Your task to perform on an android device: uninstall "Spotify" Image 0: 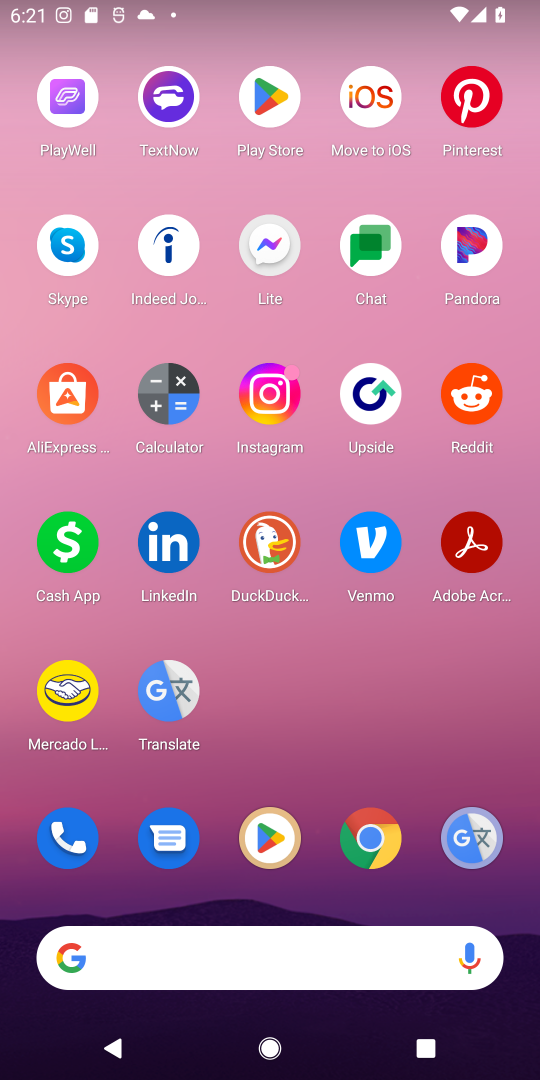
Step 0: click (274, 840)
Your task to perform on an android device: uninstall "Spotify" Image 1: 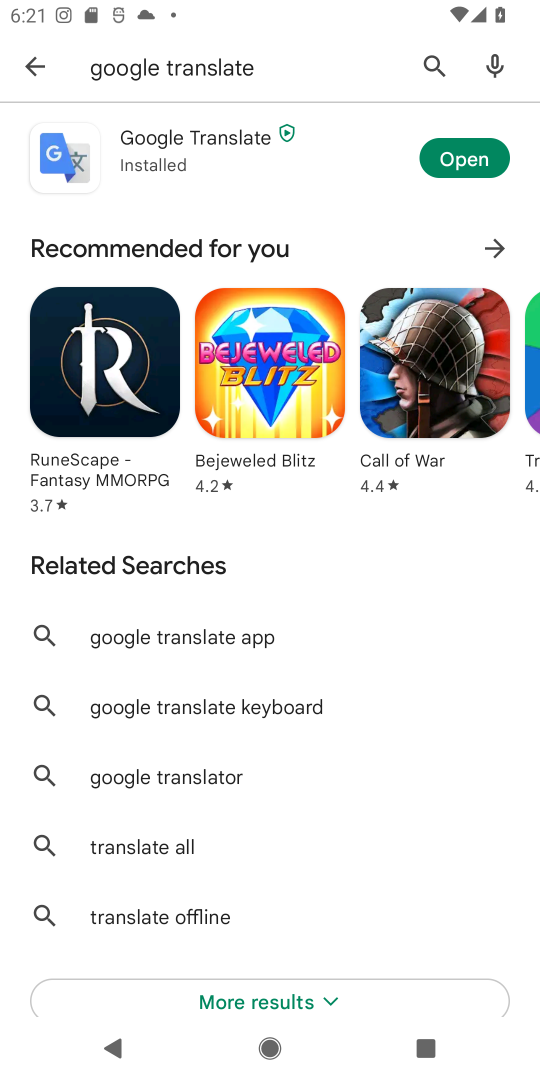
Step 1: click (433, 54)
Your task to perform on an android device: uninstall "Spotify" Image 2: 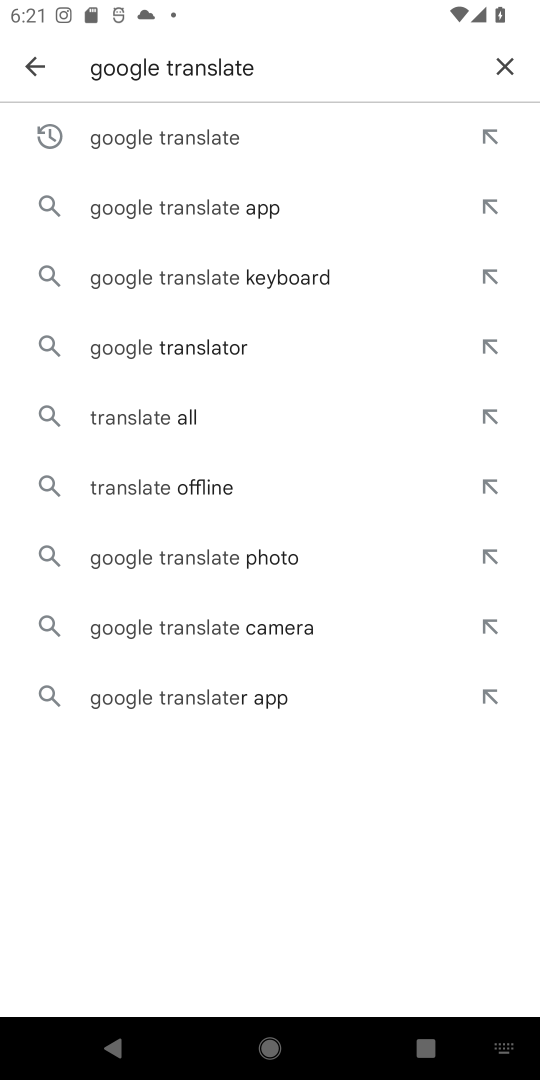
Step 2: click (505, 61)
Your task to perform on an android device: uninstall "Spotify" Image 3: 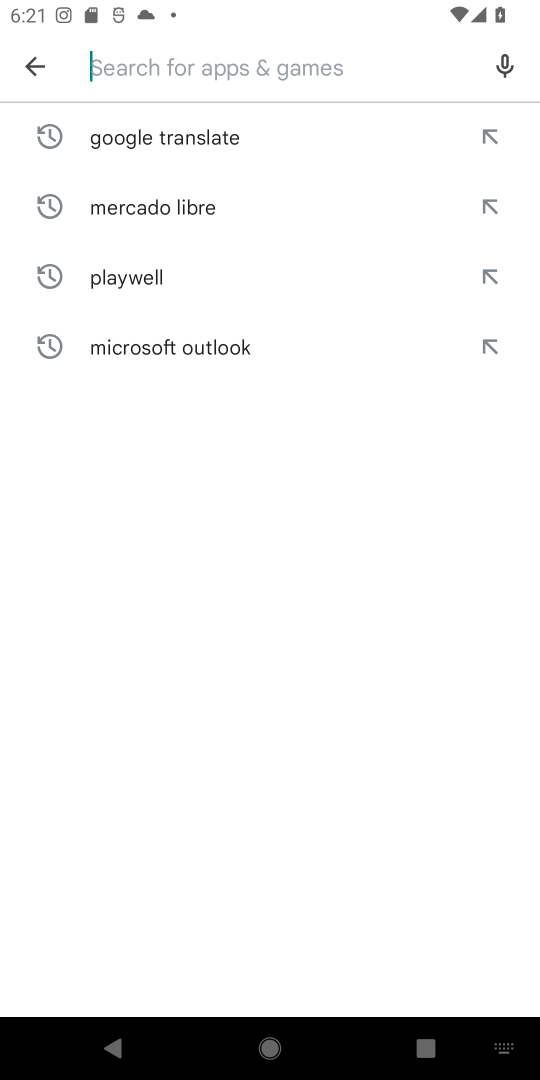
Step 3: type "Spotify"
Your task to perform on an android device: uninstall "Spotify" Image 4: 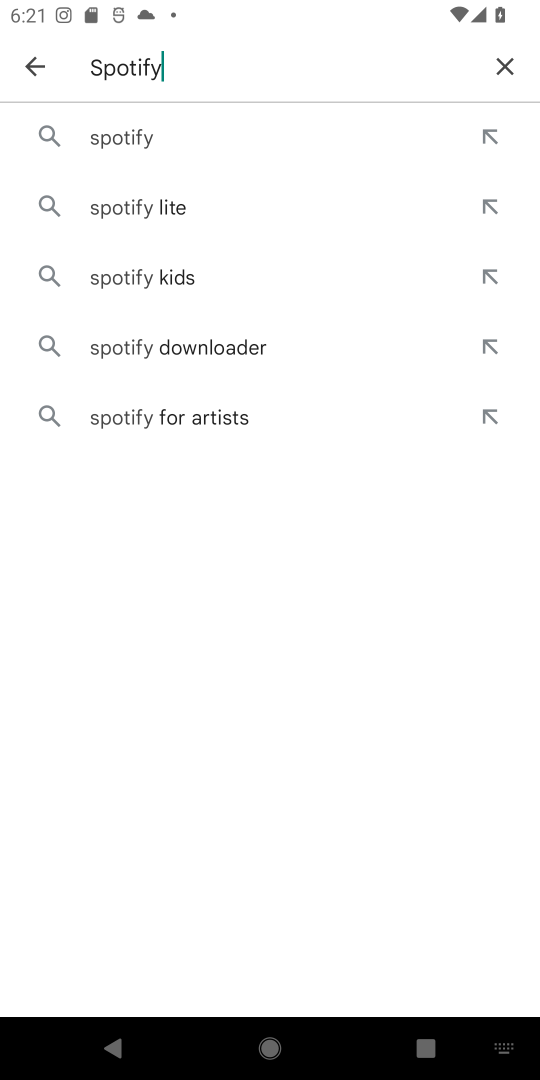
Step 4: click (124, 142)
Your task to perform on an android device: uninstall "Spotify" Image 5: 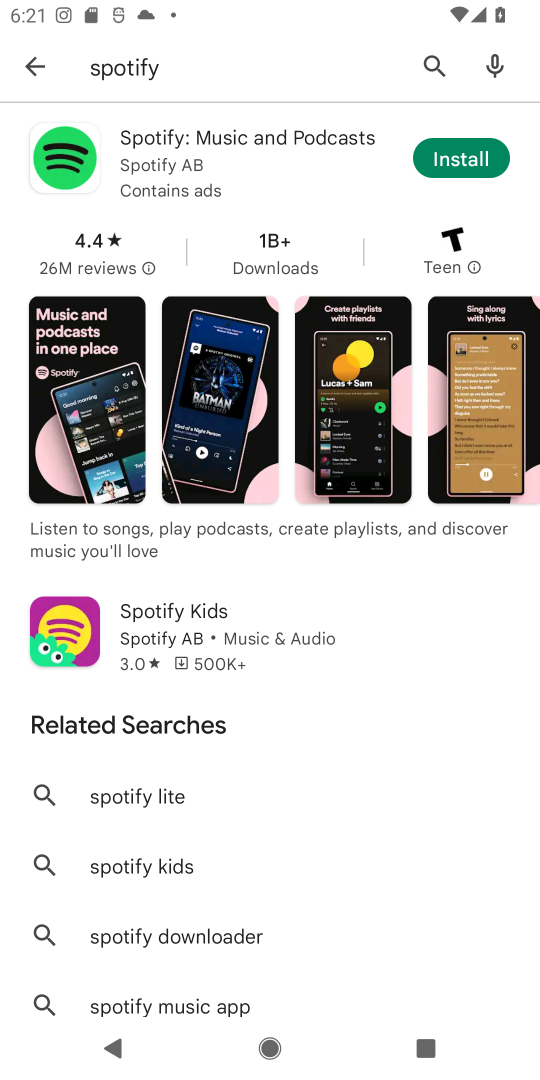
Step 5: click (234, 150)
Your task to perform on an android device: uninstall "Spotify" Image 6: 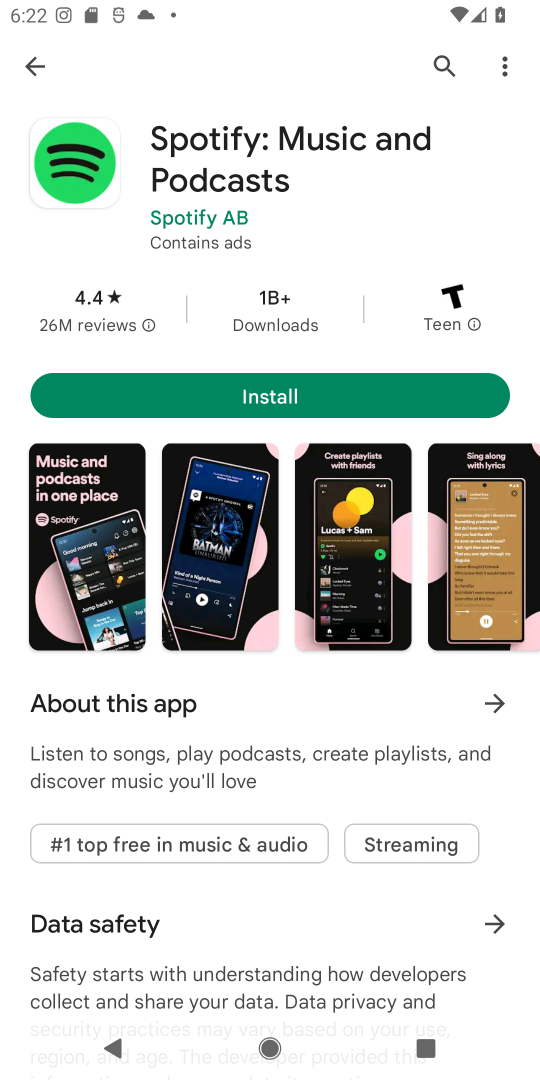
Step 6: task complete